Your task to perform on an android device: Open eBay Image 0: 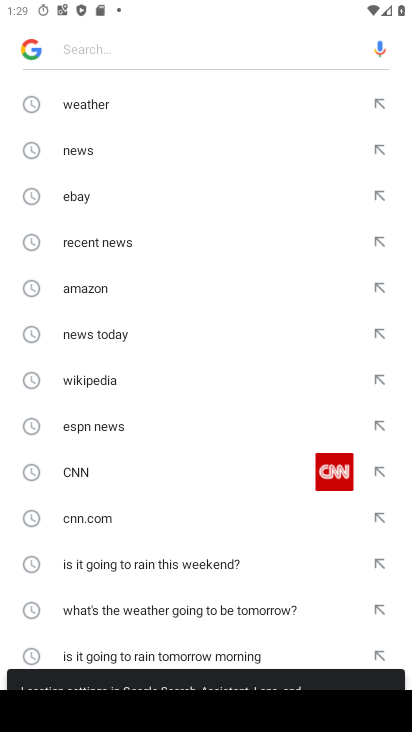
Step 0: press back button
Your task to perform on an android device: Open eBay Image 1: 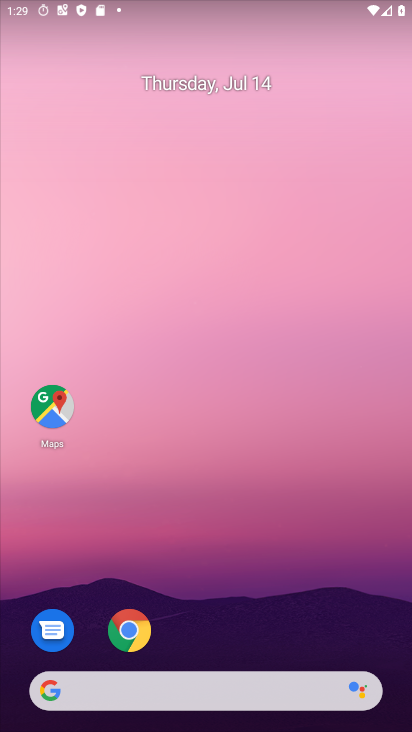
Step 1: click (134, 644)
Your task to perform on an android device: Open eBay Image 2: 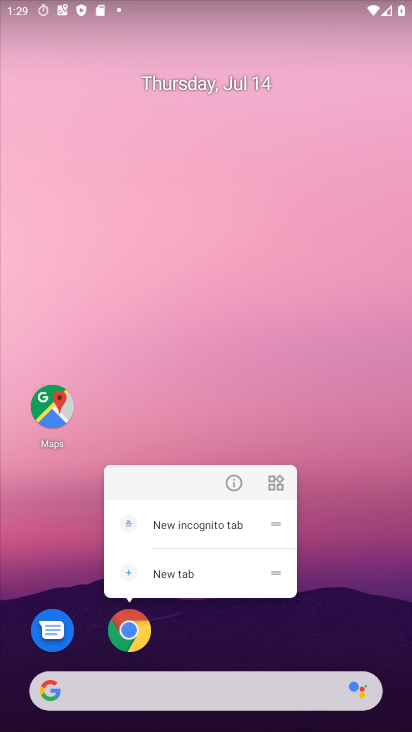
Step 2: drag from (134, 644) to (189, 644)
Your task to perform on an android device: Open eBay Image 3: 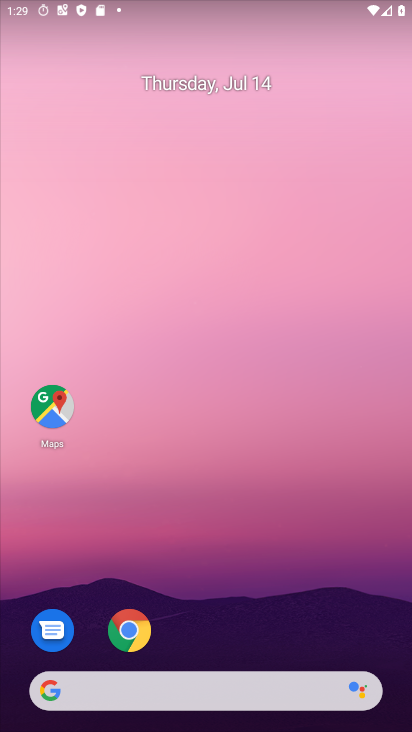
Step 3: click (137, 639)
Your task to perform on an android device: Open eBay Image 4: 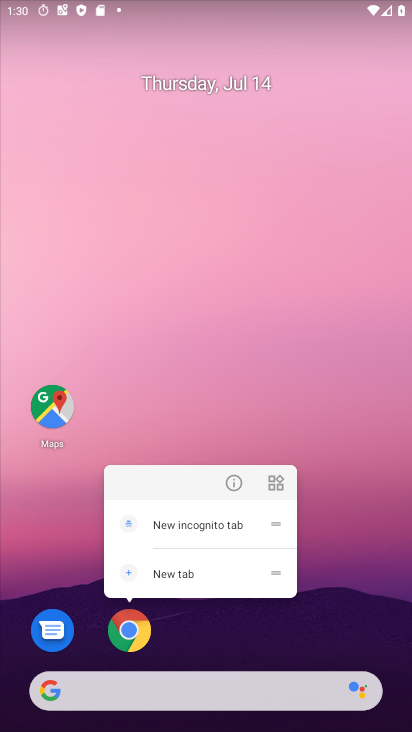
Step 4: click (113, 637)
Your task to perform on an android device: Open eBay Image 5: 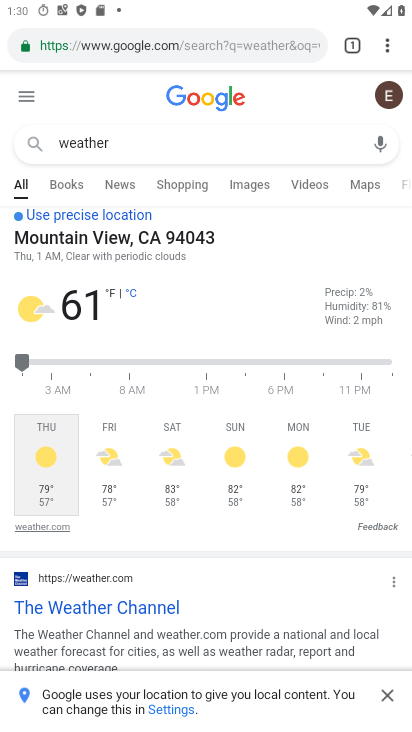
Step 5: click (222, 38)
Your task to perform on an android device: Open eBay Image 6: 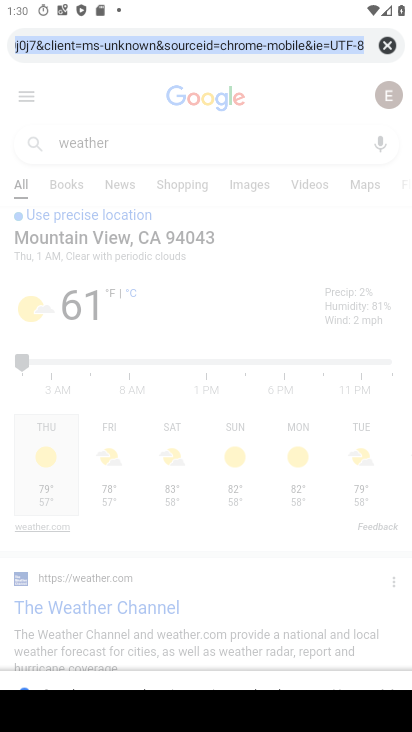
Step 6: type "ebay"
Your task to perform on an android device: Open eBay Image 7: 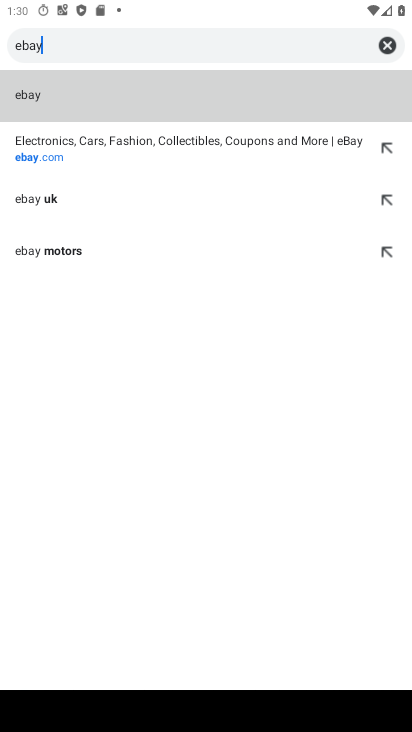
Step 7: click (67, 137)
Your task to perform on an android device: Open eBay Image 8: 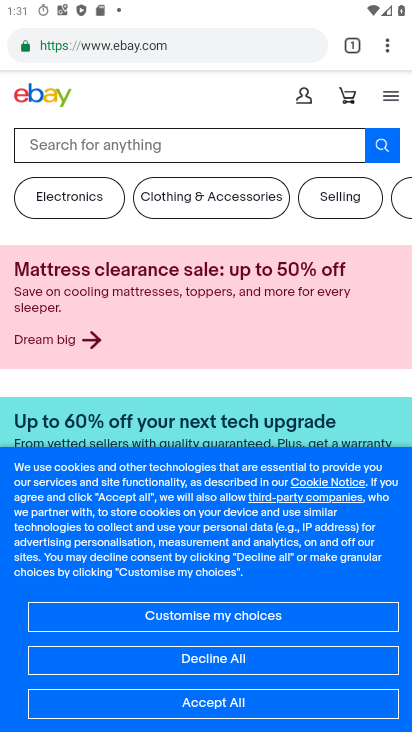
Step 8: task complete